Your task to perform on an android device: When is my next meeting? Image 0: 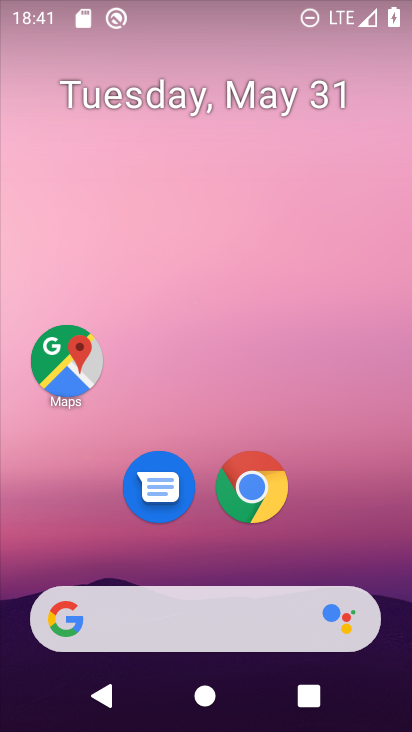
Step 0: drag from (346, 405) to (238, 21)
Your task to perform on an android device: When is my next meeting? Image 1: 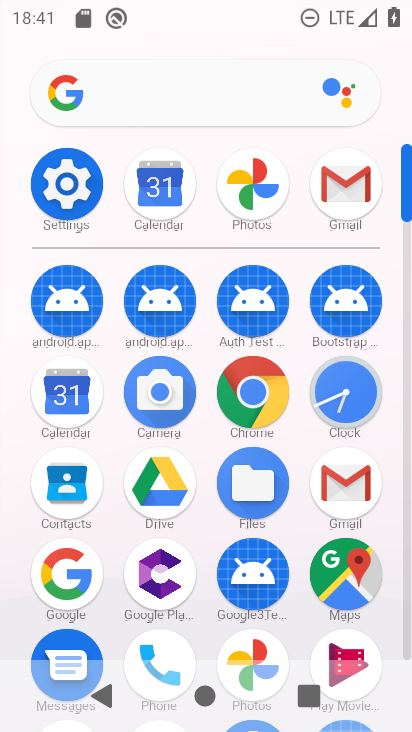
Step 1: click (50, 403)
Your task to perform on an android device: When is my next meeting? Image 2: 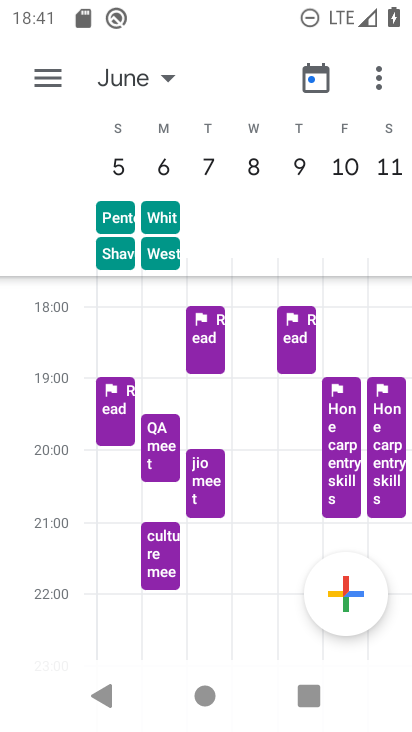
Step 2: click (44, 73)
Your task to perform on an android device: When is my next meeting? Image 3: 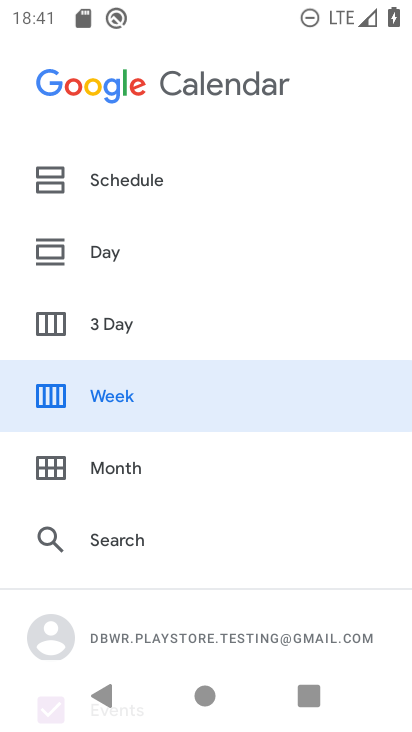
Step 3: click (99, 250)
Your task to perform on an android device: When is my next meeting? Image 4: 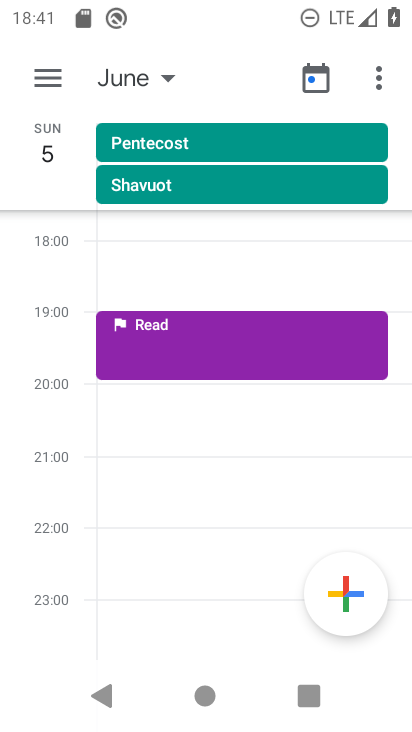
Step 4: click (164, 76)
Your task to perform on an android device: When is my next meeting? Image 5: 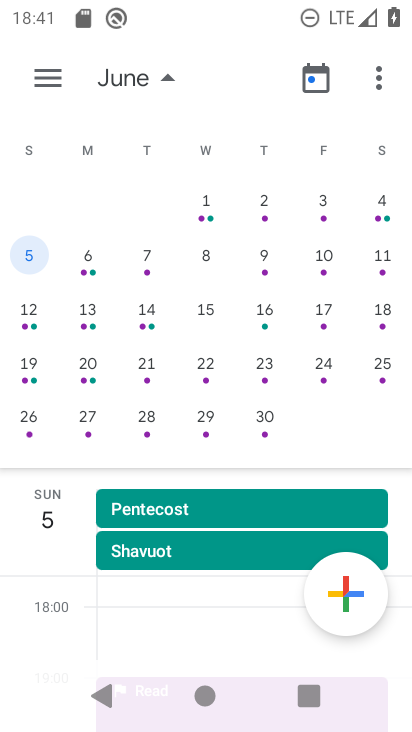
Step 5: drag from (69, 302) to (361, 322)
Your task to perform on an android device: When is my next meeting? Image 6: 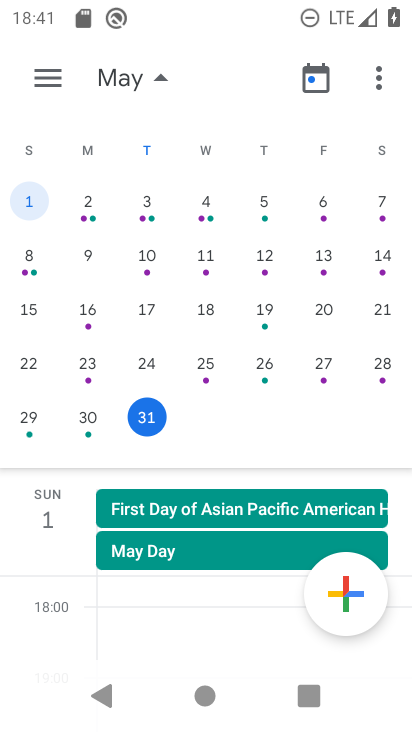
Step 6: click (152, 418)
Your task to perform on an android device: When is my next meeting? Image 7: 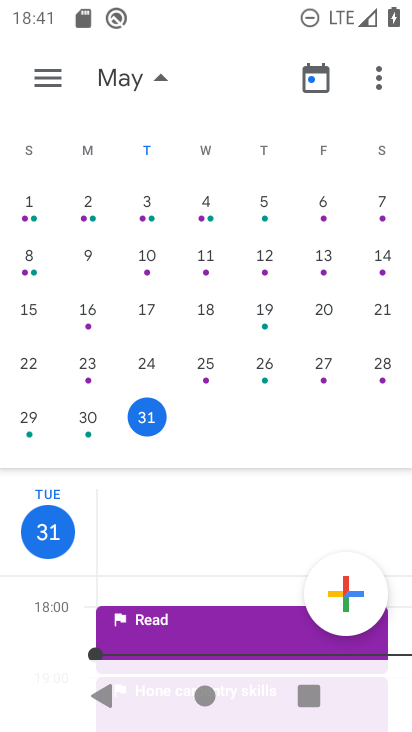
Step 7: task complete